Your task to perform on an android device: Open wifi settings Image 0: 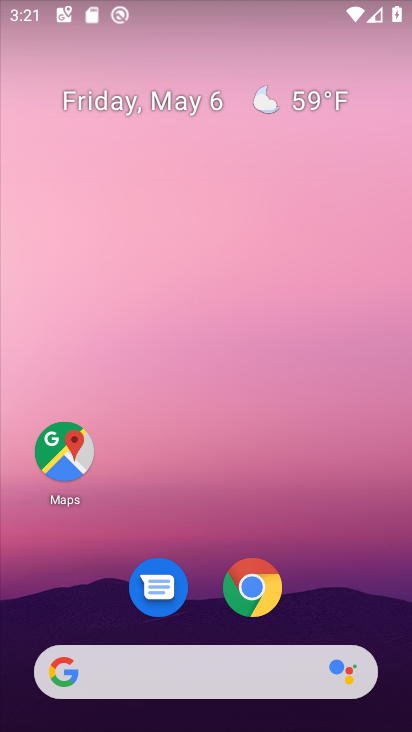
Step 0: drag from (314, 491) to (310, 0)
Your task to perform on an android device: Open wifi settings Image 1: 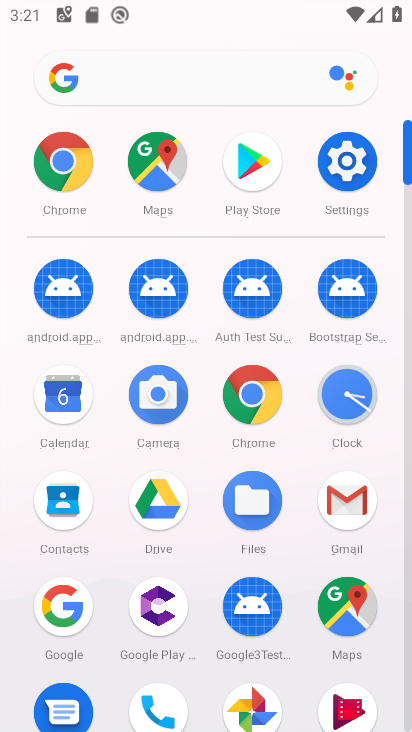
Step 1: click (334, 157)
Your task to perform on an android device: Open wifi settings Image 2: 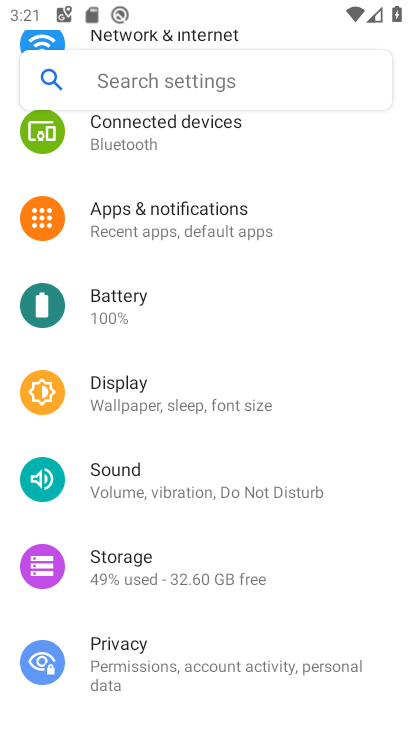
Step 2: drag from (311, 190) to (305, 442)
Your task to perform on an android device: Open wifi settings Image 3: 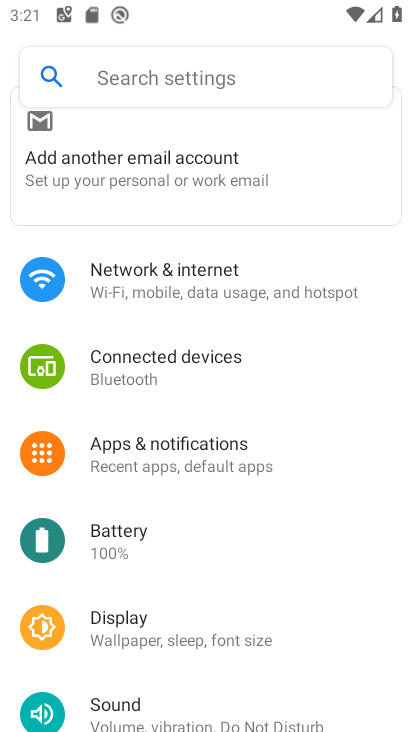
Step 3: click (269, 286)
Your task to perform on an android device: Open wifi settings Image 4: 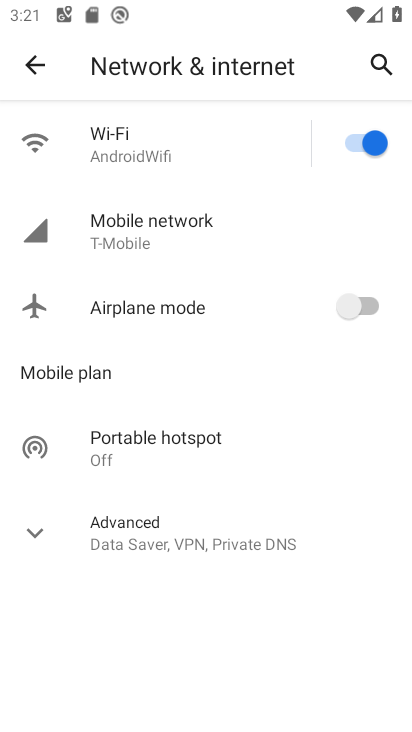
Step 4: click (254, 143)
Your task to perform on an android device: Open wifi settings Image 5: 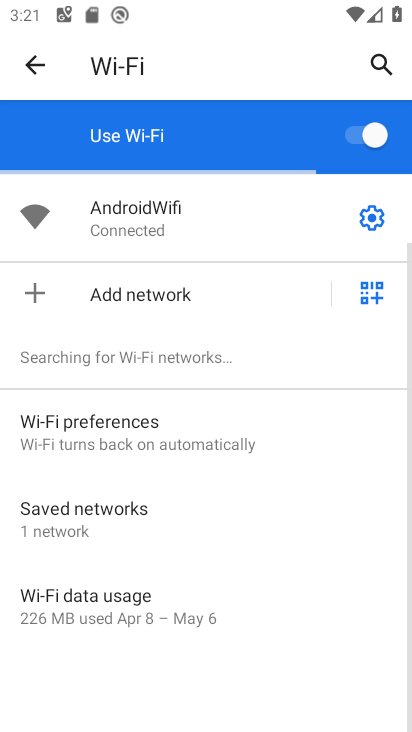
Step 5: task complete